Your task to perform on an android device: Open notification settings Image 0: 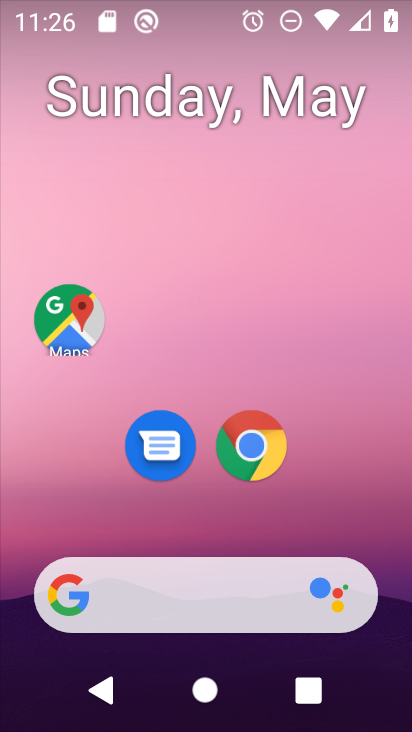
Step 0: drag from (256, 574) to (293, 143)
Your task to perform on an android device: Open notification settings Image 1: 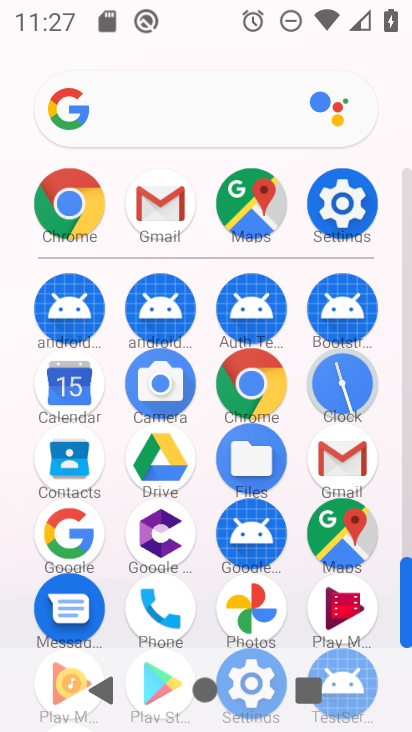
Step 1: click (334, 219)
Your task to perform on an android device: Open notification settings Image 2: 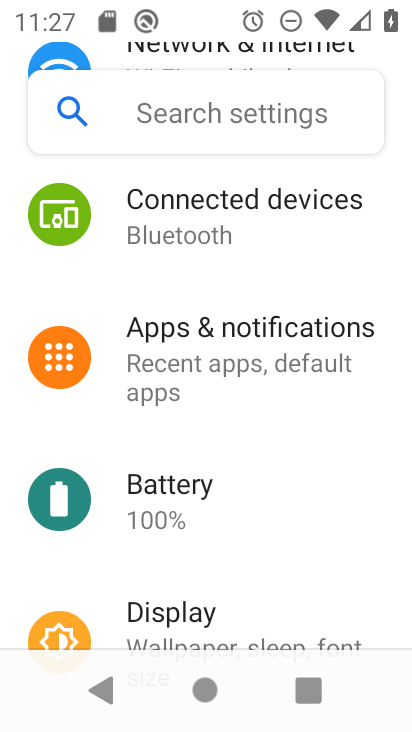
Step 2: click (218, 374)
Your task to perform on an android device: Open notification settings Image 3: 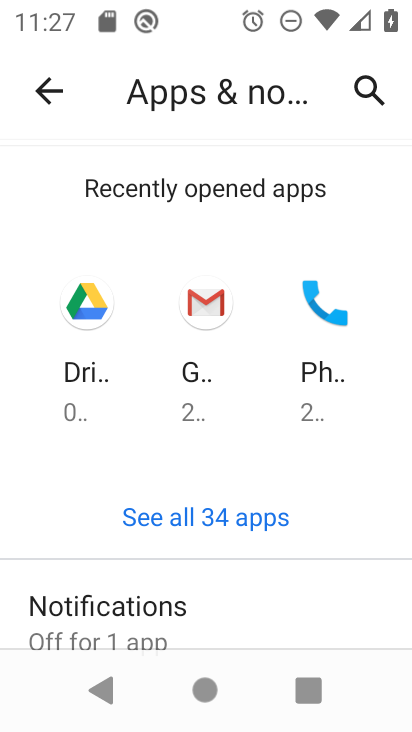
Step 3: click (137, 619)
Your task to perform on an android device: Open notification settings Image 4: 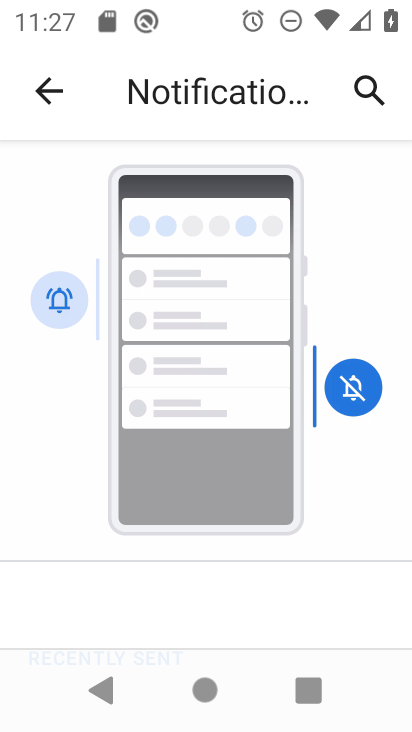
Step 4: task complete